Your task to perform on an android device: Check the settings for the Pandora app Image 0: 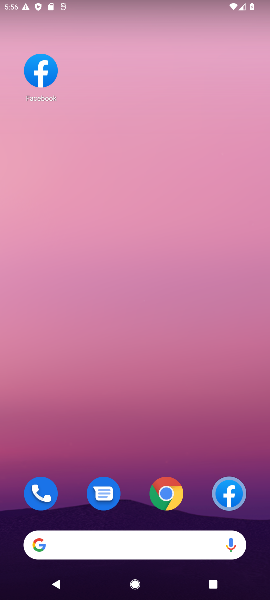
Step 0: click (100, 536)
Your task to perform on an android device: Check the settings for the Pandora app Image 1: 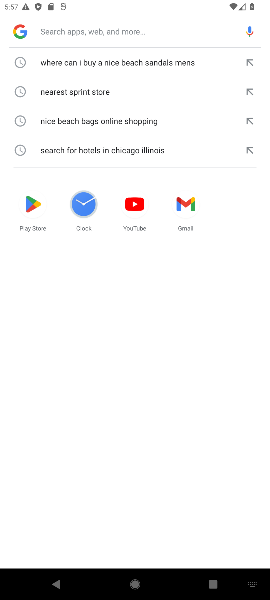
Step 1: click (35, 202)
Your task to perform on an android device: Check the settings for the Pandora app Image 2: 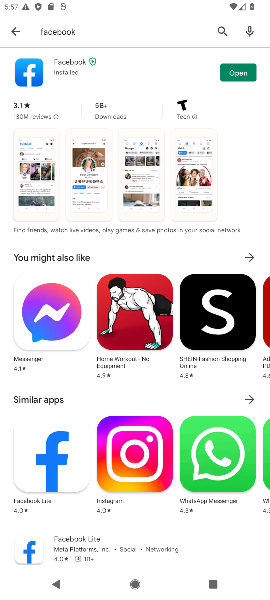
Step 2: click (15, 28)
Your task to perform on an android device: Check the settings for the Pandora app Image 3: 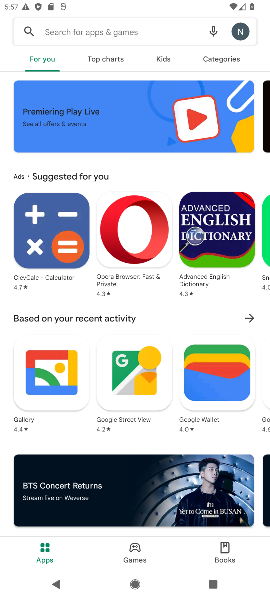
Step 3: click (77, 28)
Your task to perform on an android device: Check the settings for the Pandora app Image 4: 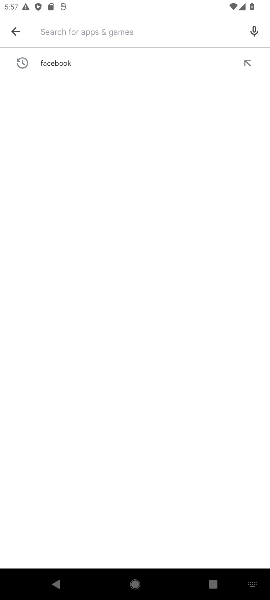
Step 4: type "Pandora app"
Your task to perform on an android device: Check the settings for the Pandora app Image 5: 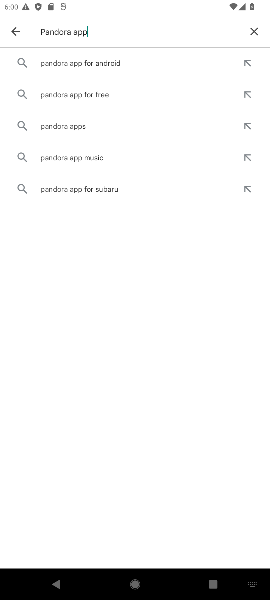
Step 5: click (80, 127)
Your task to perform on an android device: Check the settings for the Pandora app Image 6: 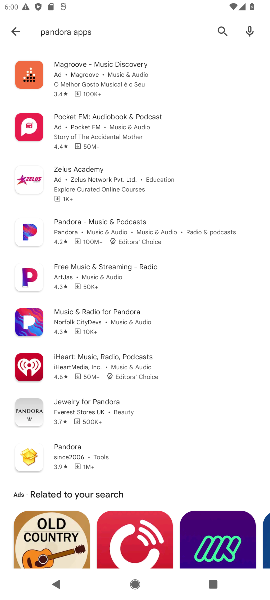
Step 6: click (84, 223)
Your task to perform on an android device: Check the settings for the Pandora app Image 7: 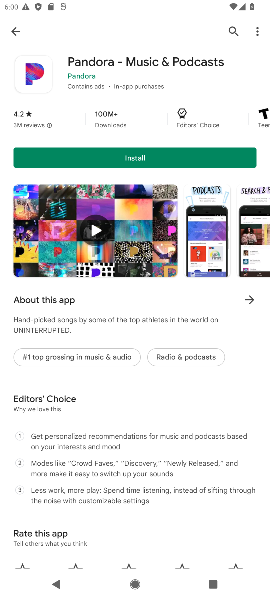
Step 7: click (119, 163)
Your task to perform on an android device: Check the settings for the Pandora app Image 8: 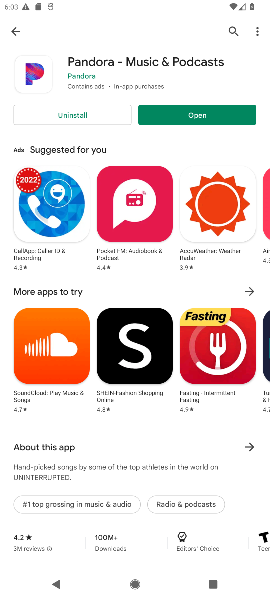
Step 8: task complete